Your task to perform on an android device: check android version Image 0: 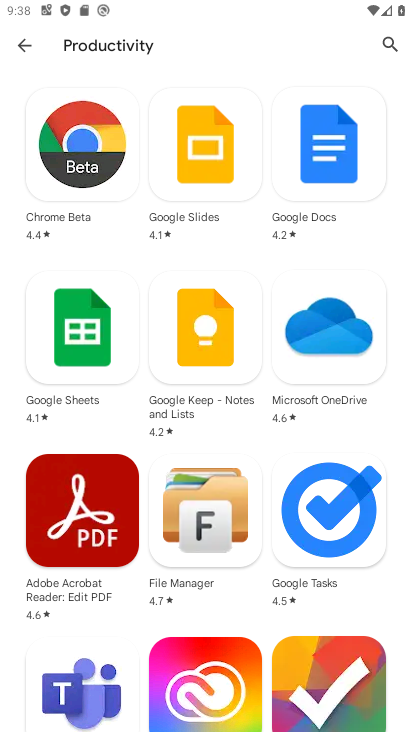
Step 0: press home button
Your task to perform on an android device: check android version Image 1: 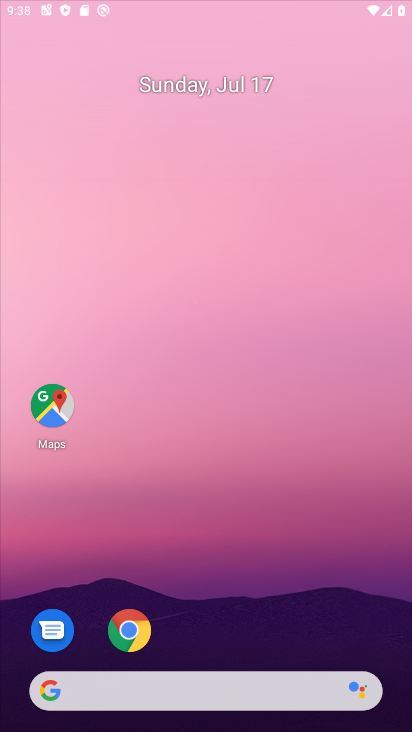
Step 1: drag from (203, 675) to (267, 23)
Your task to perform on an android device: check android version Image 2: 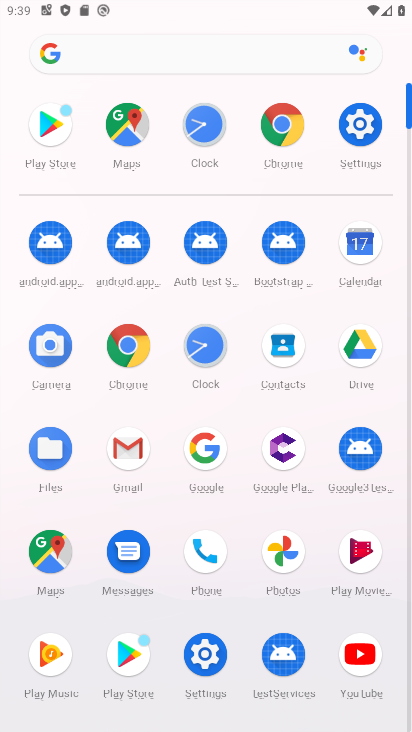
Step 2: click (358, 123)
Your task to perform on an android device: check android version Image 3: 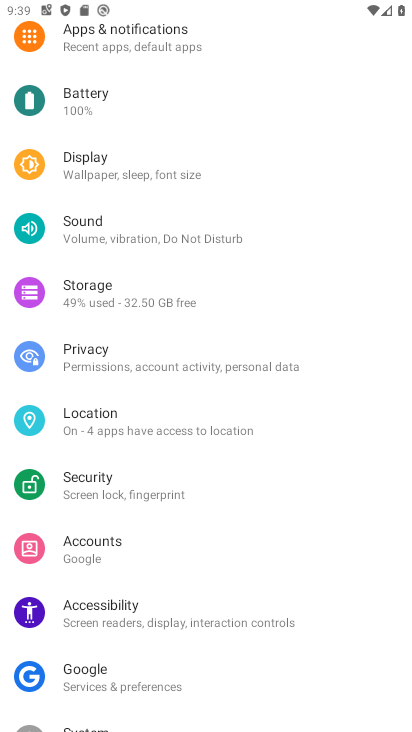
Step 3: drag from (229, 672) to (218, 99)
Your task to perform on an android device: check android version Image 4: 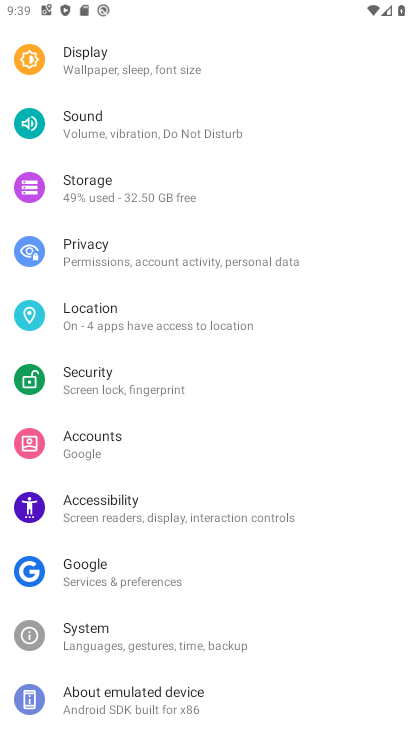
Step 4: click (182, 723)
Your task to perform on an android device: check android version Image 5: 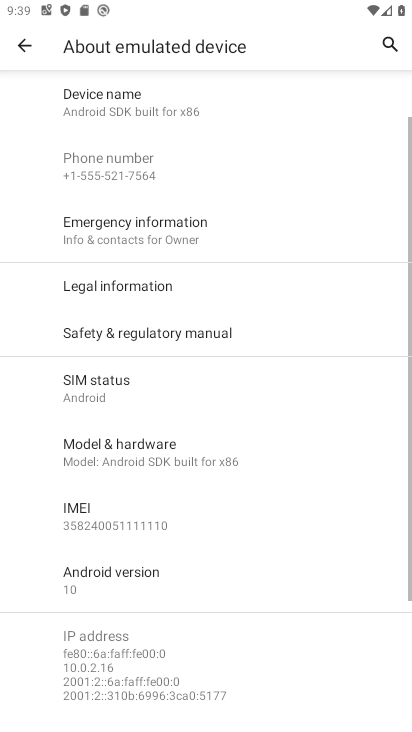
Step 5: task complete